Your task to perform on an android device: turn off notifications settings in the gmail app Image 0: 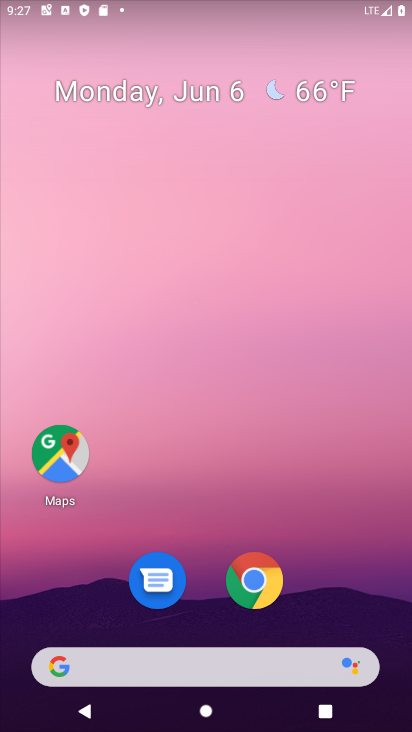
Step 0: drag from (336, 608) to (177, 13)
Your task to perform on an android device: turn off notifications settings in the gmail app Image 1: 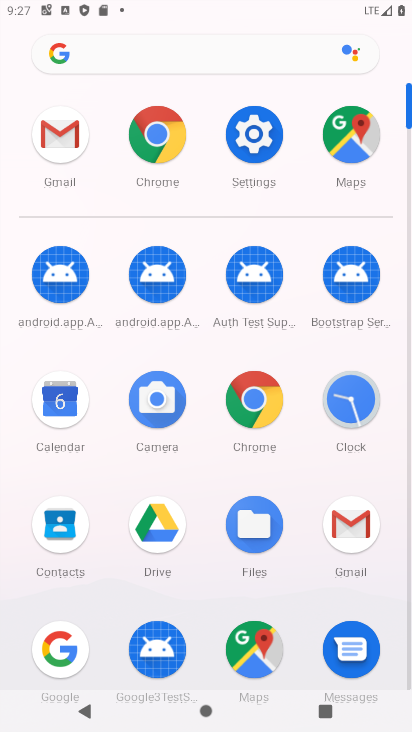
Step 1: click (66, 152)
Your task to perform on an android device: turn off notifications settings in the gmail app Image 2: 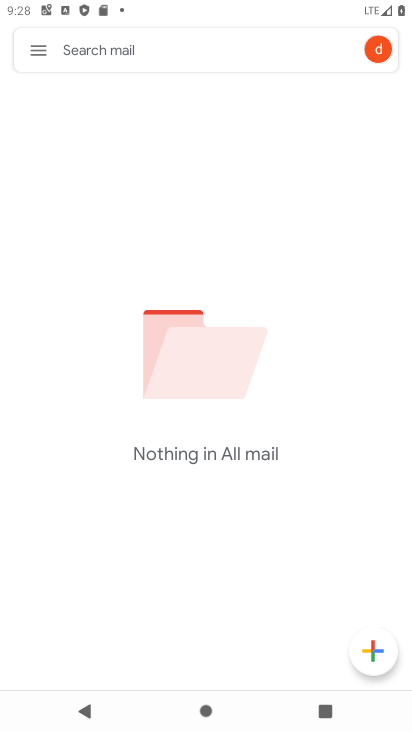
Step 2: click (29, 40)
Your task to perform on an android device: turn off notifications settings in the gmail app Image 3: 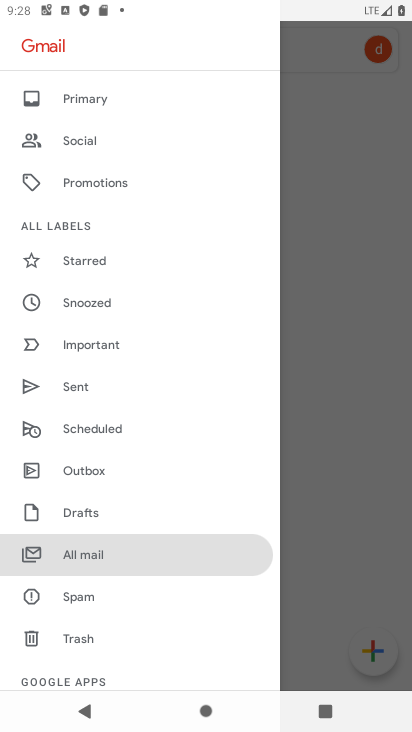
Step 3: drag from (73, 652) to (166, 75)
Your task to perform on an android device: turn off notifications settings in the gmail app Image 4: 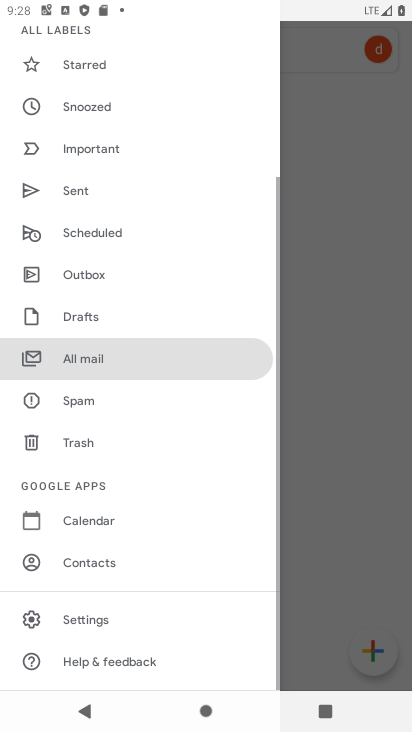
Step 4: click (69, 615)
Your task to perform on an android device: turn off notifications settings in the gmail app Image 5: 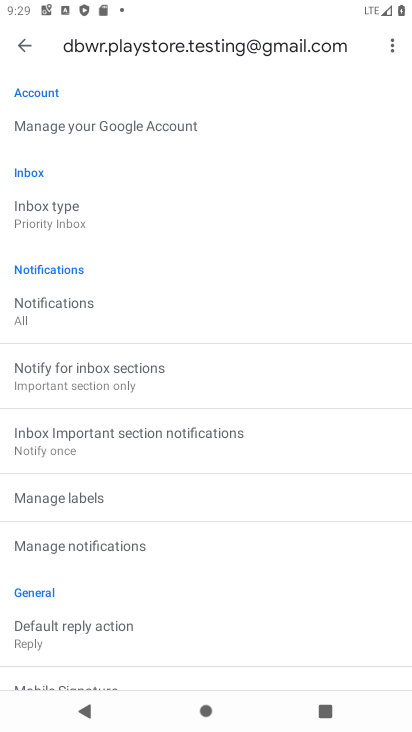
Step 5: click (26, 300)
Your task to perform on an android device: turn off notifications settings in the gmail app Image 6: 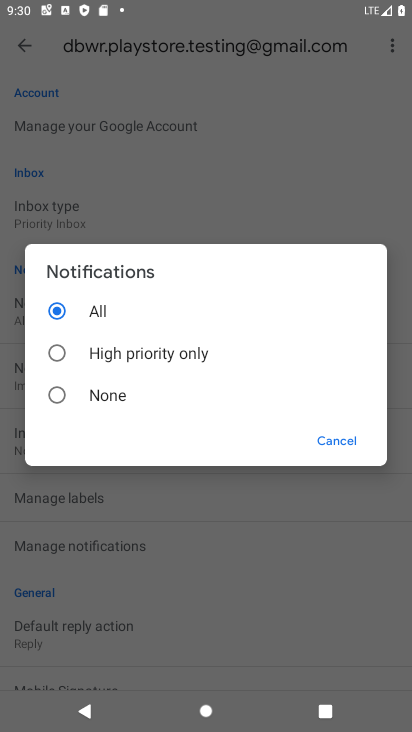
Step 6: click (87, 390)
Your task to perform on an android device: turn off notifications settings in the gmail app Image 7: 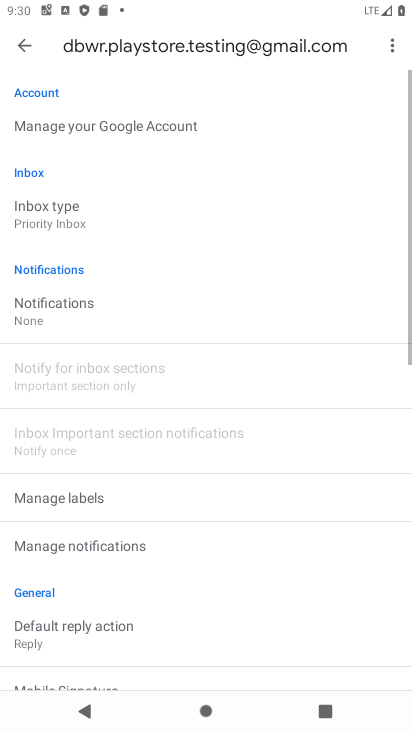
Step 7: task complete